Your task to perform on an android device: stop showing notifications on the lock screen Image 0: 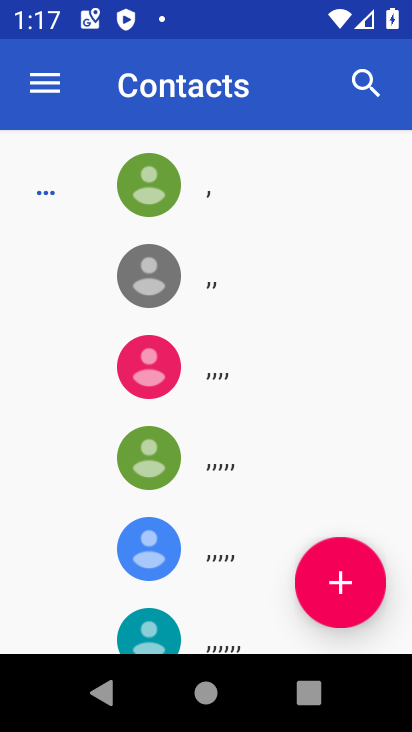
Step 0: press home button
Your task to perform on an android device: stop showing notifications on the lock screen Image 1: 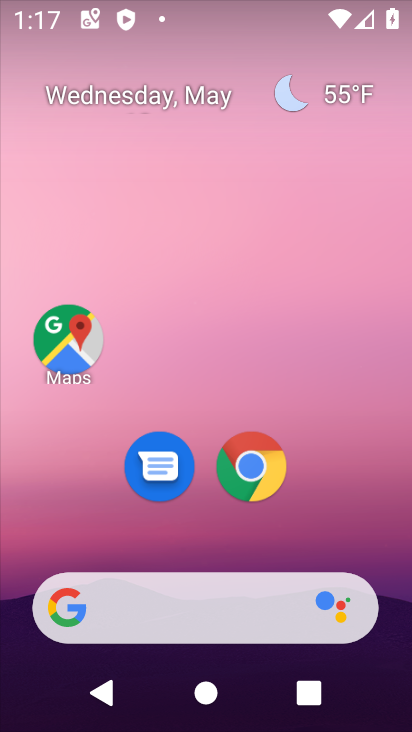
Step 1: drag from (345, 558) to (295, 65)
Your task to perform on an android device: stop showing notifications on the lock screen Image 2: 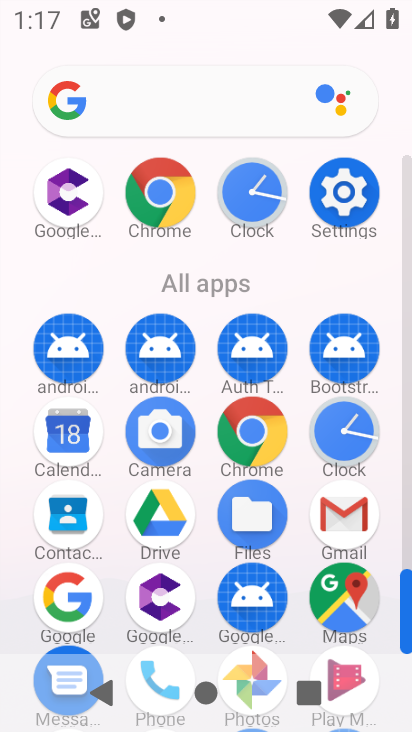
Step 2: click (346, 202)
Your task to perform on an android device: stop showing notifications on the lock screen Image 3: 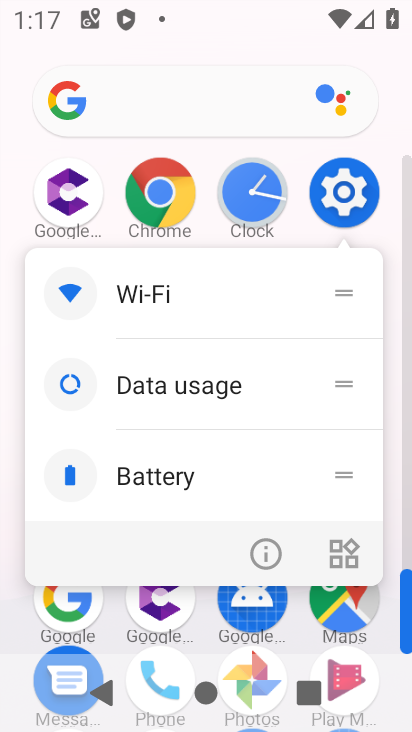
Step 3: click (346, 180)
Your task to perform on an android device: stop showing notifications on the lock screen Image 4: 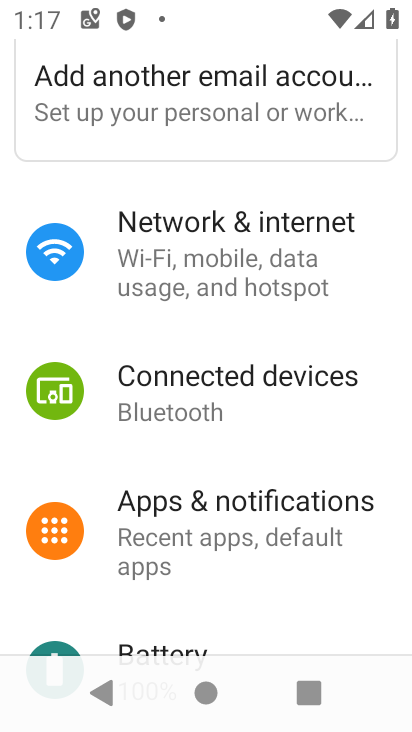
Step 4: drag from (262, 447) to (247, 332)
Your task to perform on an android device: stop showing notifications on the lock screen Image 5: 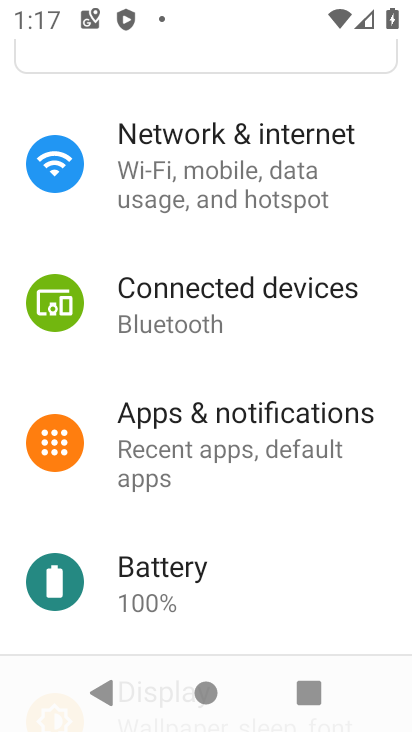
Step 5: click (247, 413)
Your task to perform on an android device: stop showing notifications on the lock screen Image 6: 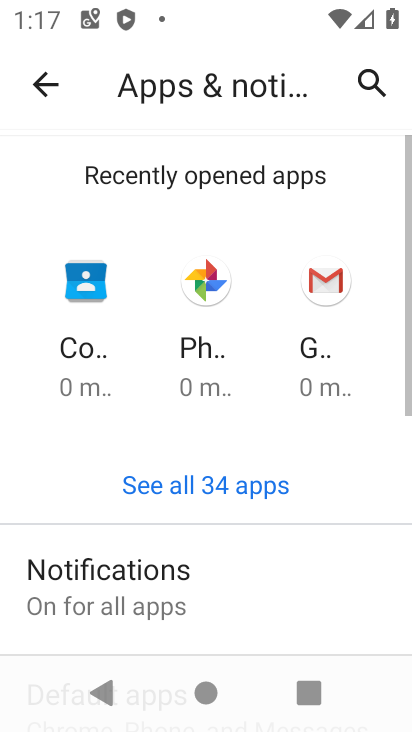
Step 6: drag from (210, 527) to (204, 181)
Your task to perform on an android device: stop showing notifications on the lock screen Image 7: 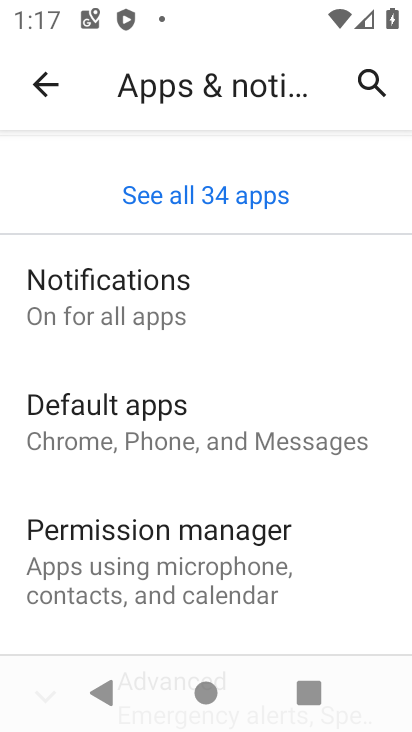
Step 7: click (168, 309)
Your task to perform on an android device: stop showing notifications on the lock screen Image 8: 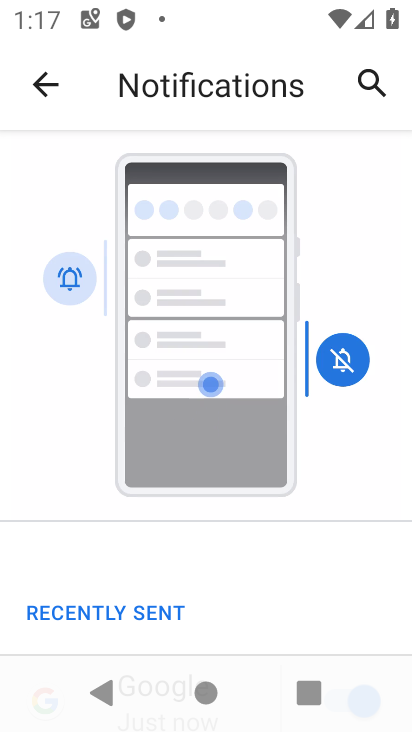
Step 8: drag from (176, 525) to (183, 227)
Your task to perform on an android device: stop showing notifications on the lock screen Image 9: 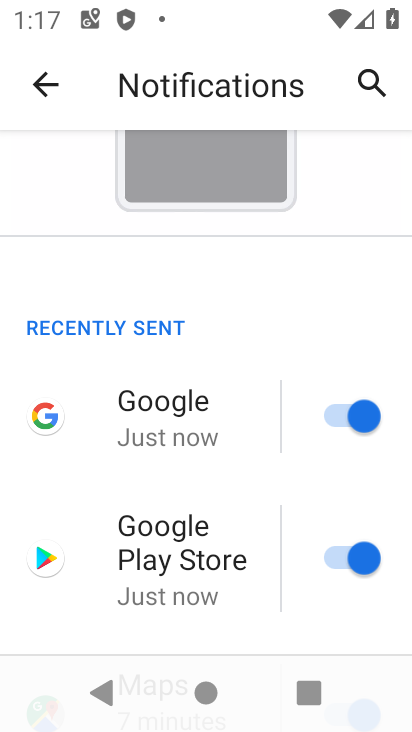
Step 9: drag from (232, 521) to (229, 225)
Your task to perform on an android device: stop showing notifications on the lock screen Image 10: 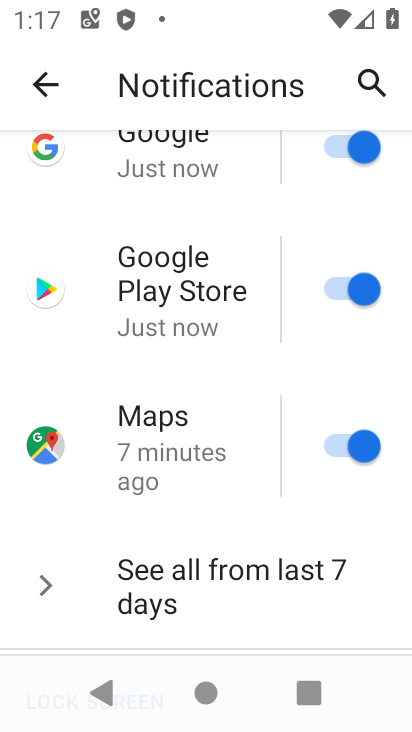
Step 10: drag from (261, 520) to (242, 251)
Your task to perform on an android device: stop showing notifications on the lock screen Image 11: 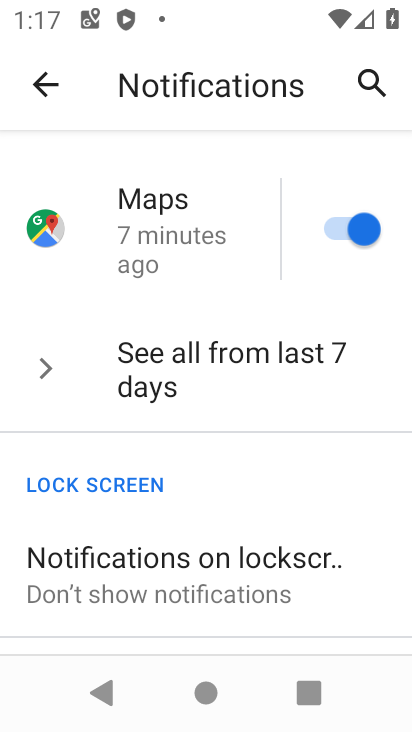
Step 11: drag from (223, 500) to (233, 279)
Your task to perform on an android device: stop showing notifications on the lock screen Image 12: 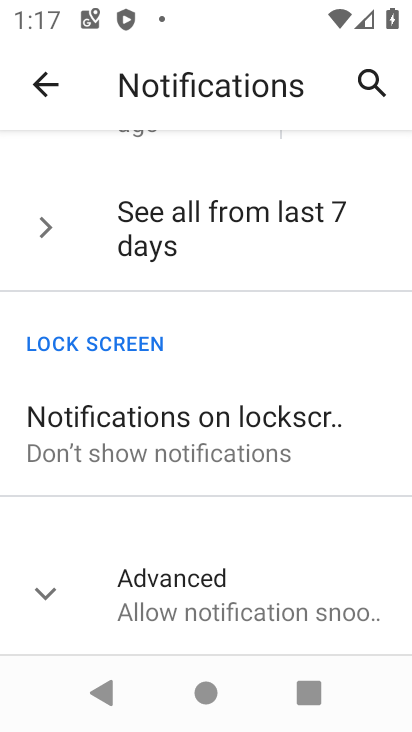
Step 12: click (196, 420)
Your task to perform on an android device: stop showing notifications on the lock screen Image 13: 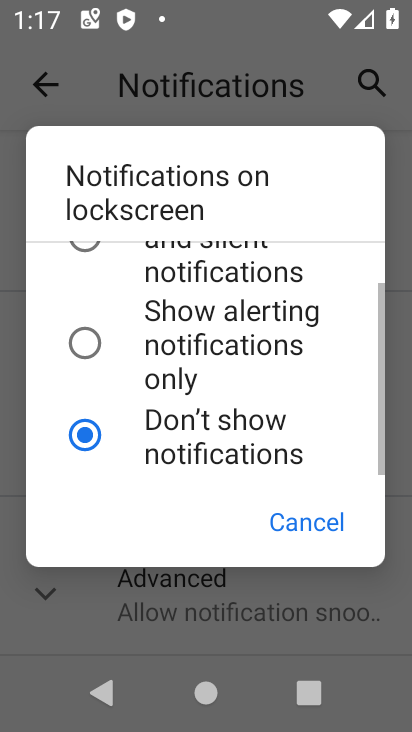
Step 13: click (199, 439)
Your task to perform on an android device: stop showing notifications on the lock screen Image 14: 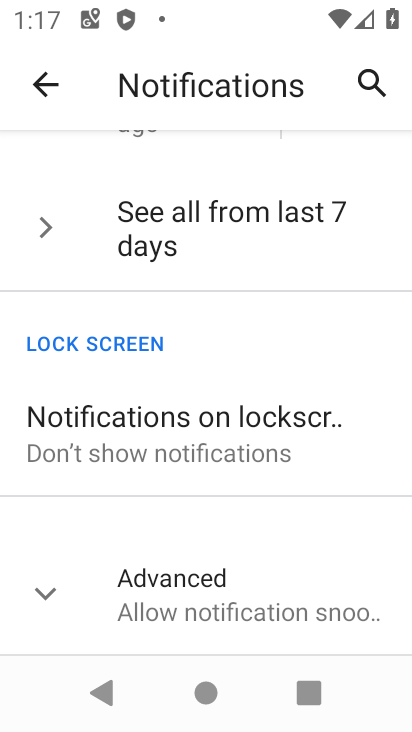
Step 14: task complete